Your task to perform on an android device: turn off sleep mode Image 0: 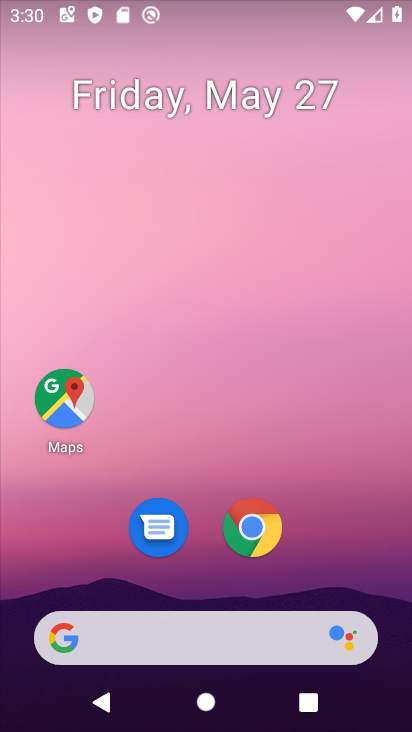
Step 0: drag from (378, 515) to (225, 0)
Your task to perform on an android device: turn off sleep mode Image 1: 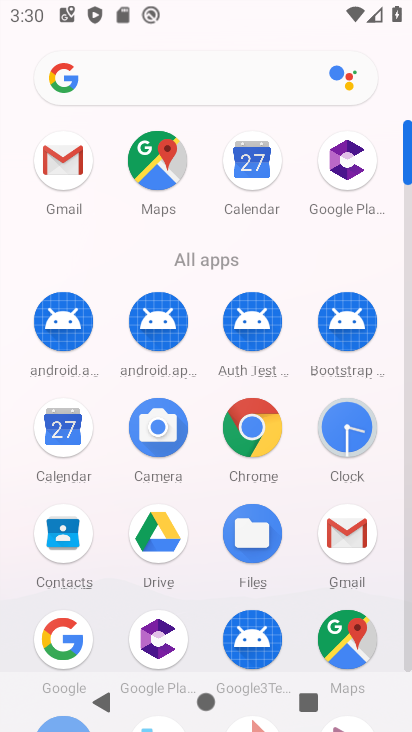
Step 1: click (405, 666)
Your task to perform on an android device: turn off sleep mode Image 2: 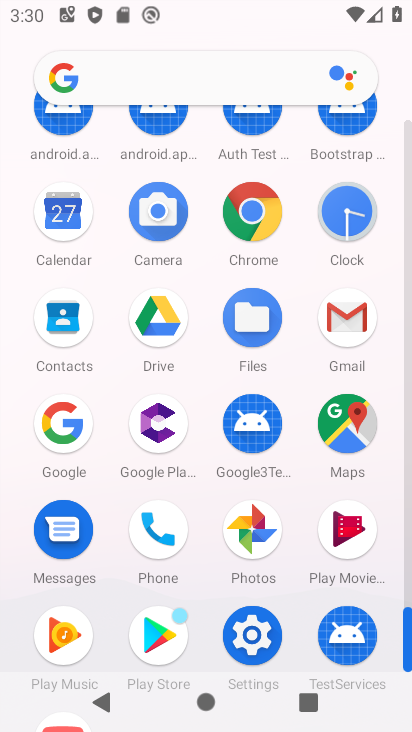
Step 2: click (274, 625)
Your task to perform on an android device: turn off sleep mode Image 3: 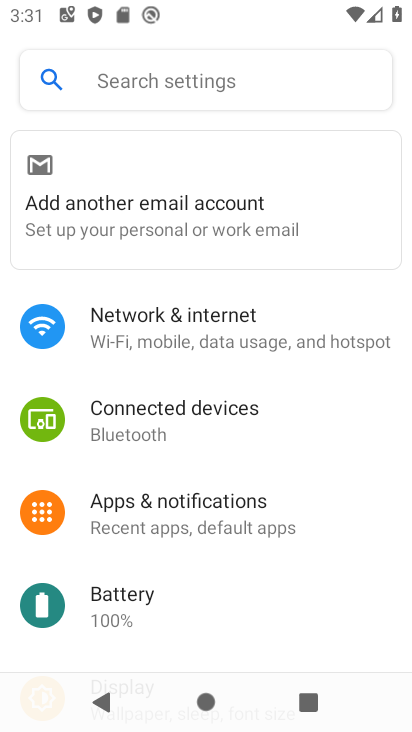
Step 3: type "fghjhgfdfhjhgfjhgfghjhgfdjhgfkjfhjghjjhghgfhjhgfghfrkjhgfhjhgfdkjhgf"
Your task to perform on an android device: turn off sleep mode Image 4: 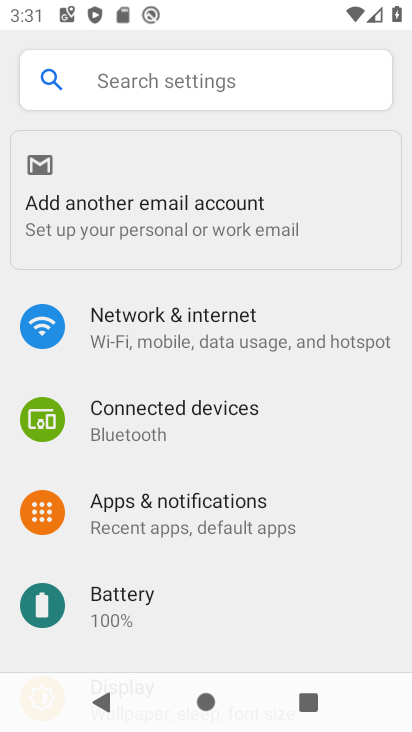
Step 4: drag from (197, 589) to (191, 418)
Your task to perform on an android device: turn off sleep mode Image 5: 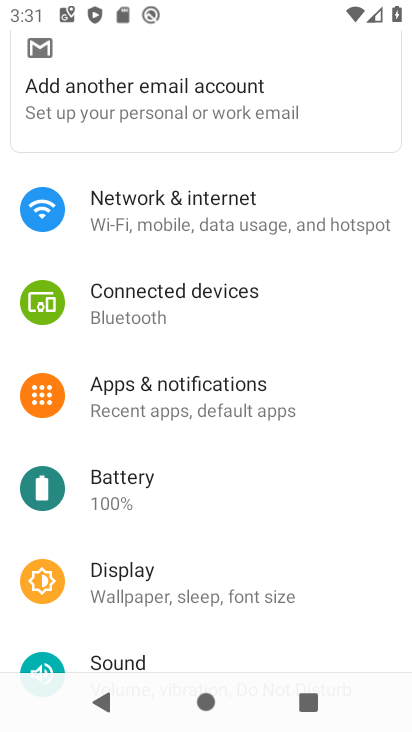
Step 5: click (183, 581)
Your task to perform on an android device: turn off sleep mode Image 6: 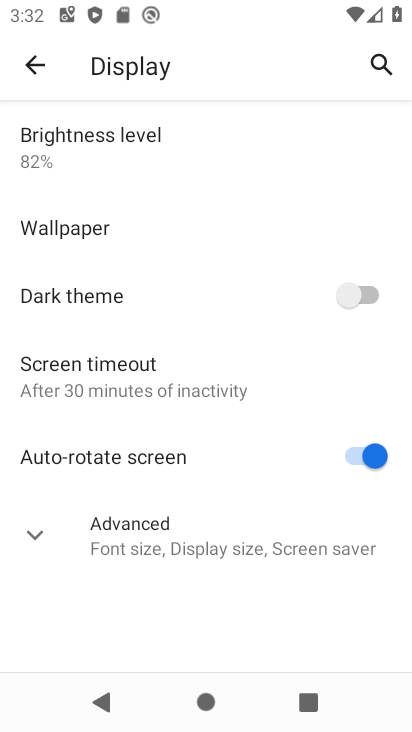
Step 6: task complete